Your task to perform on an android device: turn on showing notifications on the lock screen Image 0: 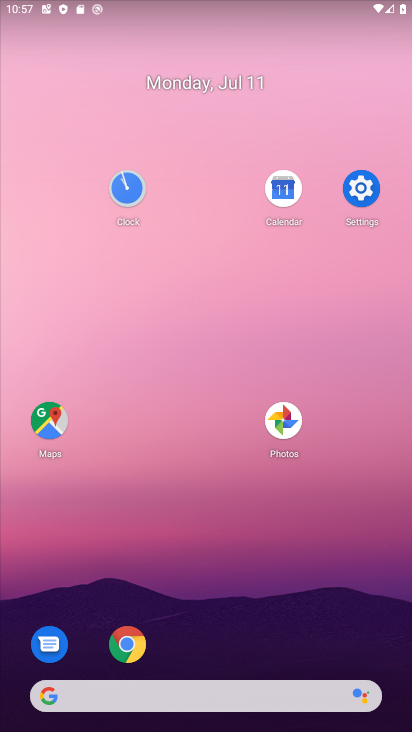
Step 0: click (366, 192)
Your task to perform on an android device: turn on showing notifications on the lock screen Image 1: 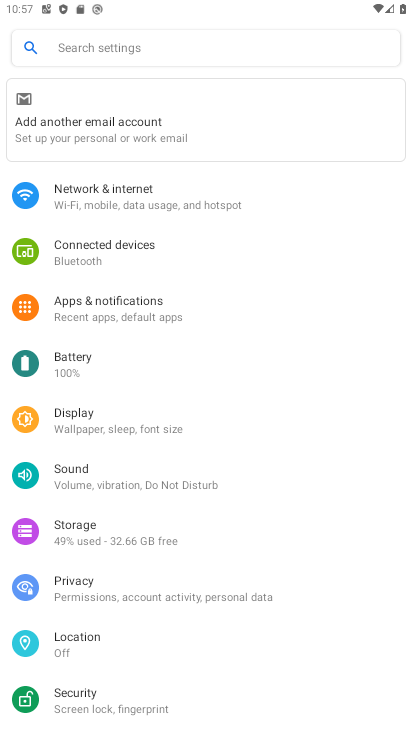
Step 1: click (128, 304)
Your task to perform on an android device: turn on showing notifications on the lock screen Image 2: 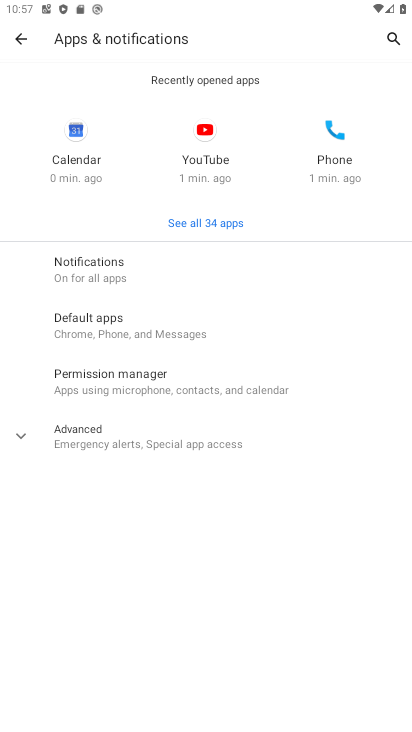
Step 2: click (115, 441)
Your task to perform on an android device: turn on showing notifications on the lock screen Image 3: 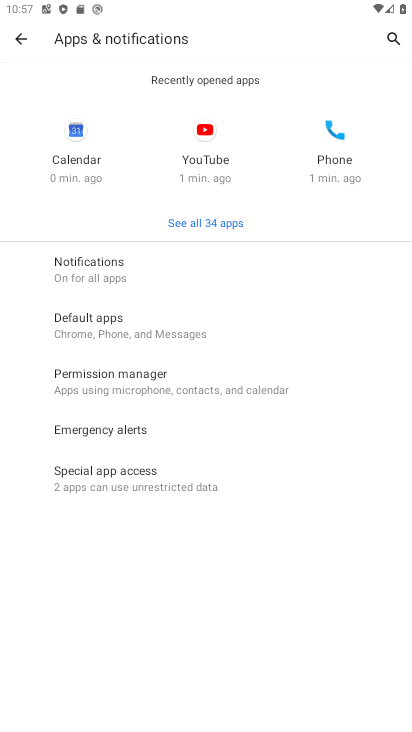
Step 3: click (139, 263)
Your task to perform on an android device: turn on showing notifications on the lock screen Image 4: 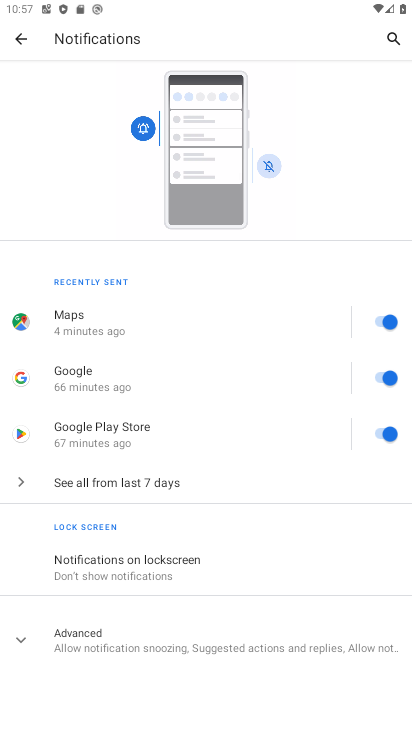
Step 4: click (223, 574)
Your task to perform on an android device: turn on showing notifications on the lock screen Image 5: 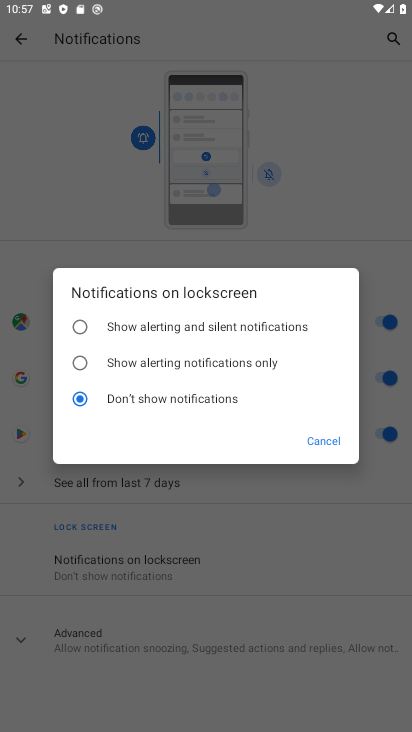
Step 5: click (229, 321)
Your task to perform on an android device: turn on showing notifications on the lock screen Image 6: 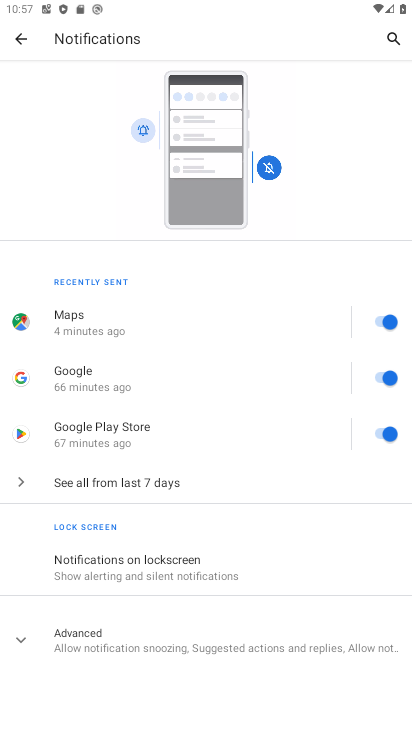
Step 6: task complete